Your task to perform on an android device: Open Youtube and go to the subscriptions tab Image 0: 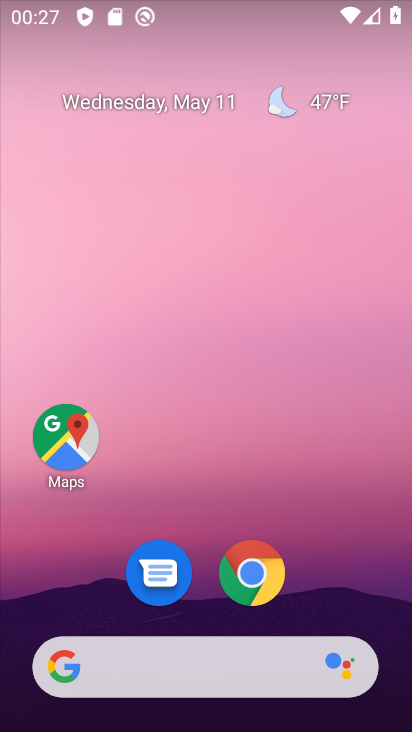
Step 0: drag from (385, 612) to (311, 70)
Your task to perform on an android device: Open Youtube and go to the subscriptions tab Image 1: 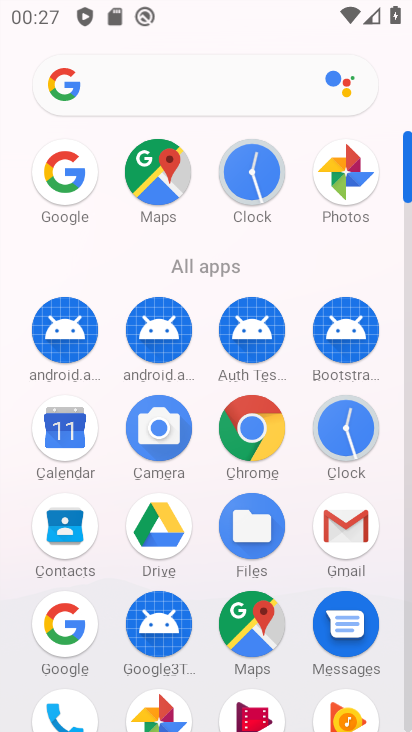
Step 1: click (407, 725)
Your task to perform on an android device: Open Youtube and go to the subscriptions tab Image 2: 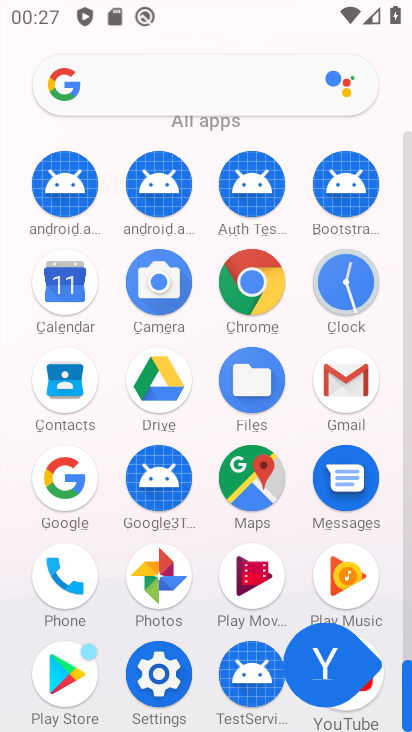
Step 2: click (407, 725)
Your task to perform on an android device: Open Youtube and go to the subscriptions tab Image 3: 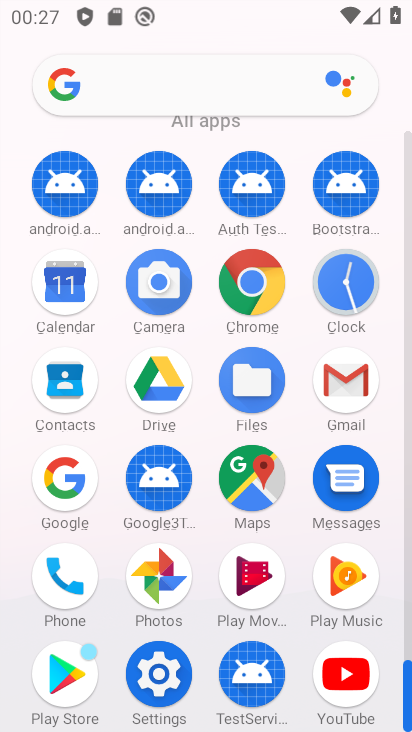
Step 3: click (333, 673)
Your task to perform on an android device: Open Youtube and go to the subscriptions tab Image 4: 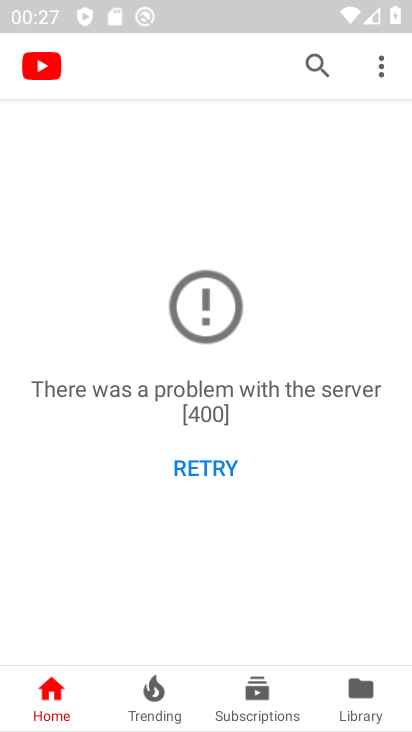
Step 4: task complete